Your task to perform on an android device: Go to accessibility settings Image 0: 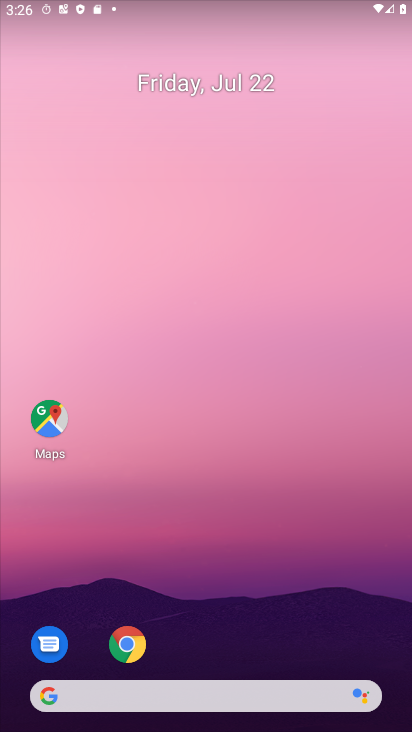
Step 0: press home button
Your task to perform on an android device: Go to accessibility settings Image 1: 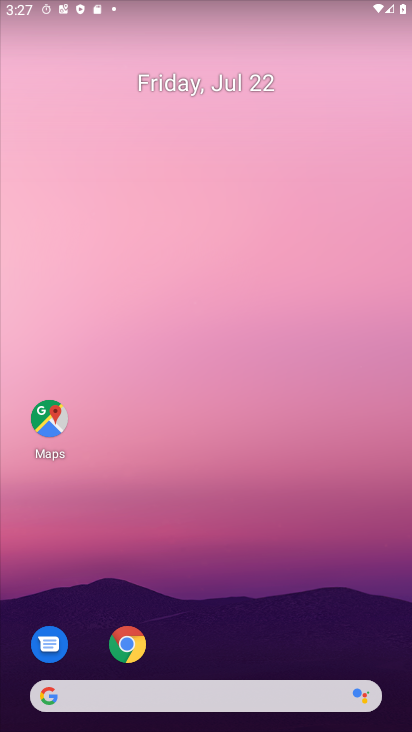
Step 1: drag from (220, 661) to (162, 99)
Your task to perform on an android device: Go to accessibility settings Image 2: 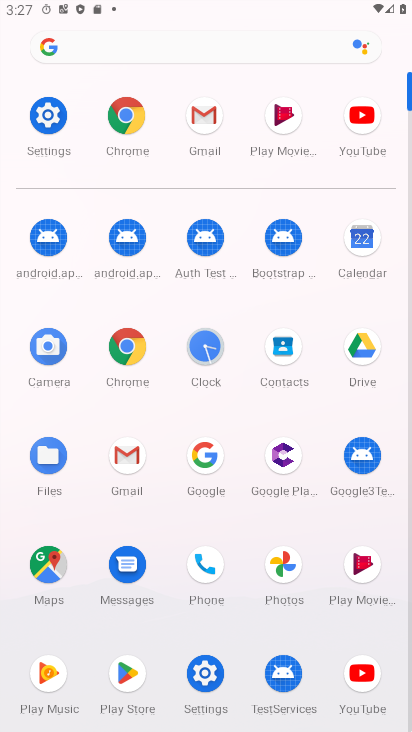
Step 2: click (42, 115)
Your task to perform on an android device: Go to accessibility settings Image 3: 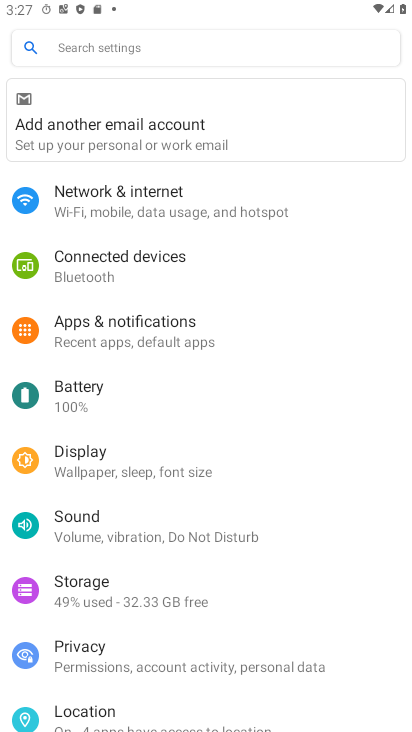
Step 3: drag from (251, 622) to (292, 19)
Your task to perform on an android device: Go to accessibility settings Image 4: 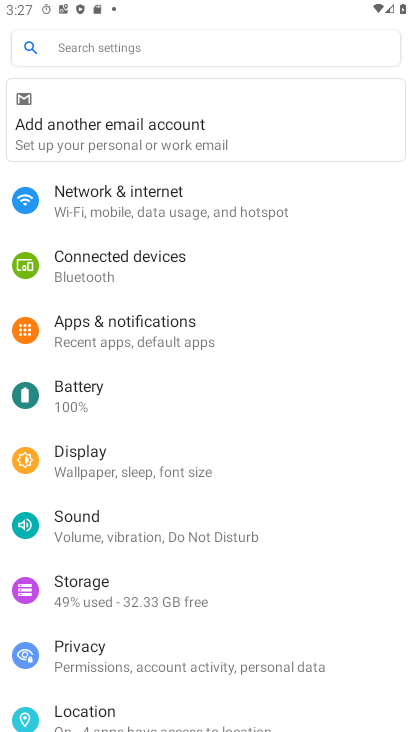
Step 4: drag from (275, 483) to (258, 0)
Your task to perform on an android device: Go to accessibility settings Image 5: 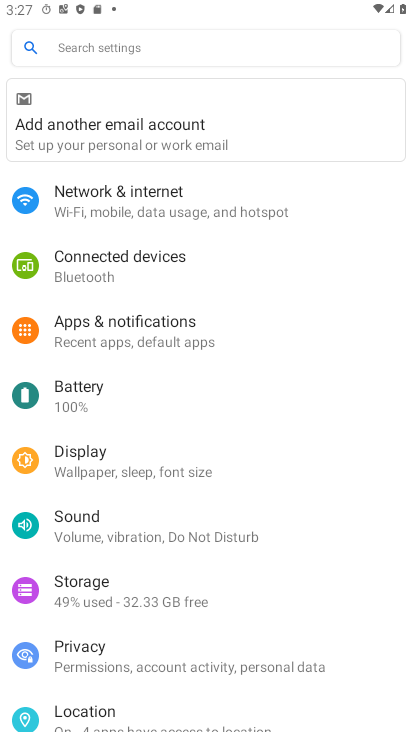
Step 5: drag from (279, 628) to (253, 54)
Your task to perform on an android device: Go to accessibility settings Image 6: 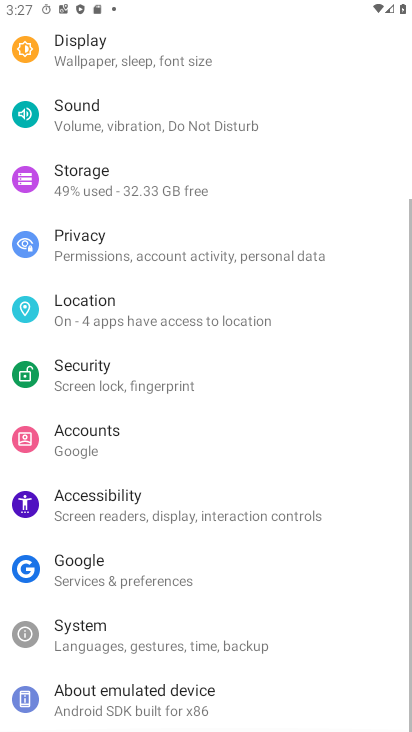
Step 6: drag from (309, 589) to (302, 105)
Your task to perform on an android device: Go to accessibility settings Image 7: 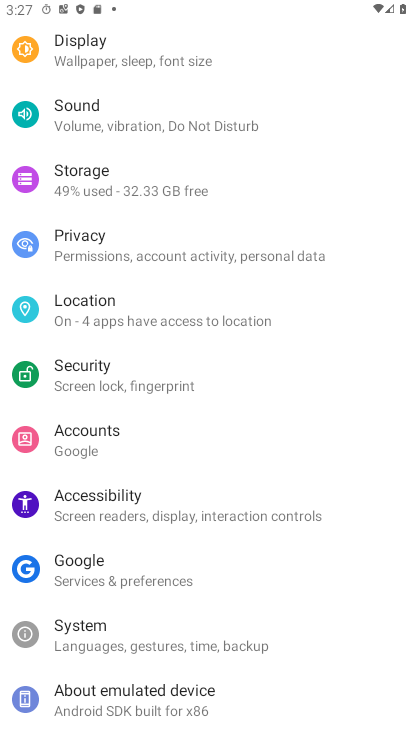
Step 7: click (89, 513)
Your task to perform on an android device: Go to accessibility settings Image 8: 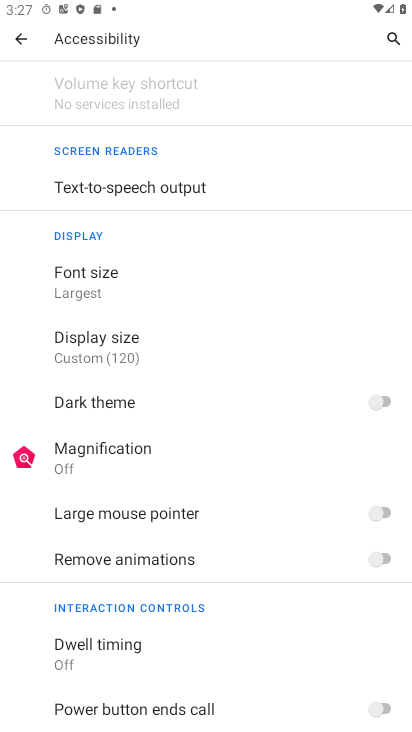
Step 8: task complete